Your task to perform on an android device: open chrome and create a bookmark for the current page Image 0: 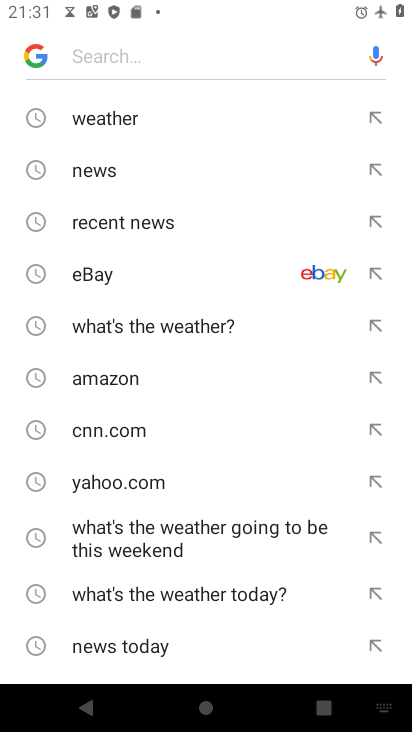
Step 0: press home button
Your task to perform on an android device: open chrome and create a bookmark for the current page Image 1: 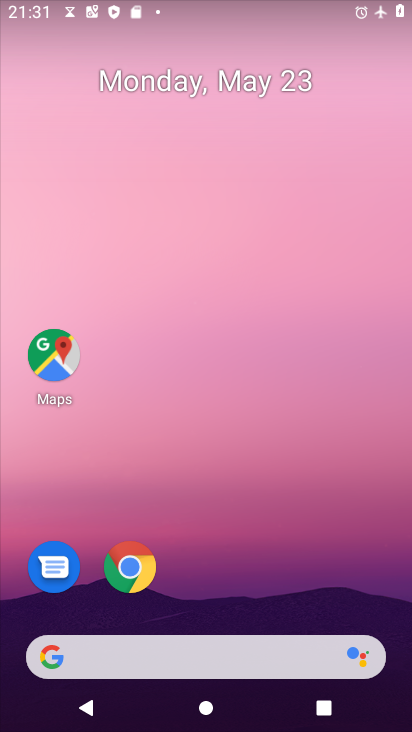
Step 1: click (127, 565)
Your task to perform on an android device: open chrome and create a bookmark for the current page Image 2: 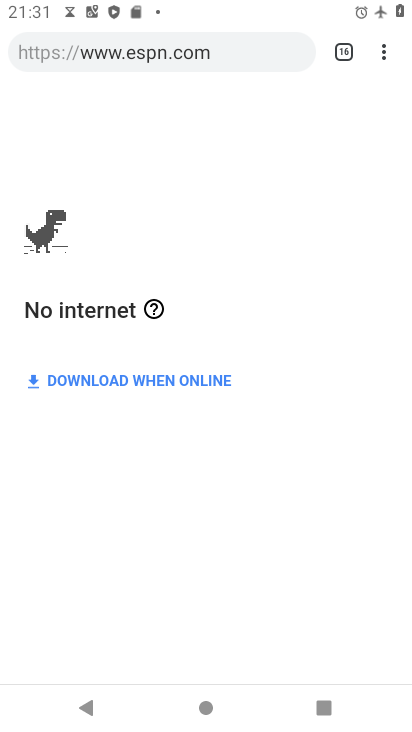
Step 2: click (373, 47)
Your task to perform on an android device: open chrome and create a bookmark for the current page Image 3: 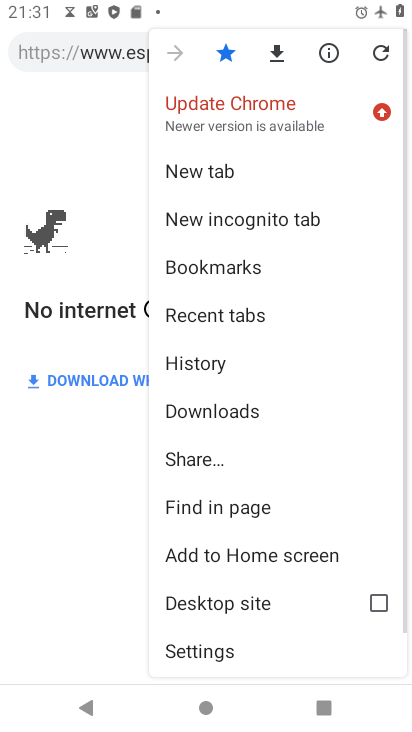
Step 3: click (226, 53)
Your task to perform on an android device: open chrome and create a bookmark for the current page Image 4: 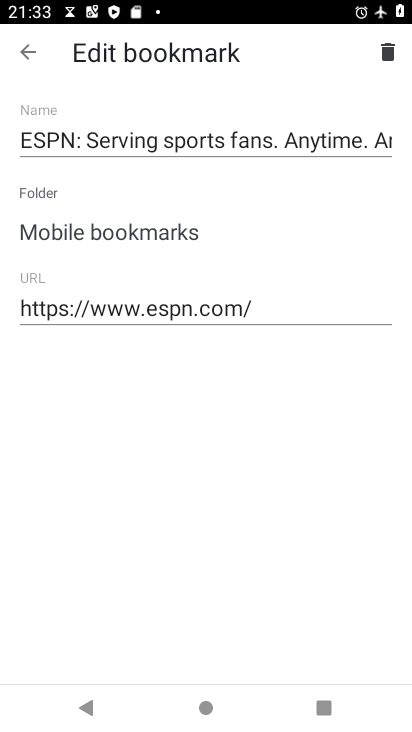
Step 4: click (33, 43)
Your task to perform on an android device: open chrome and create a bookmark for the current page Image 5: 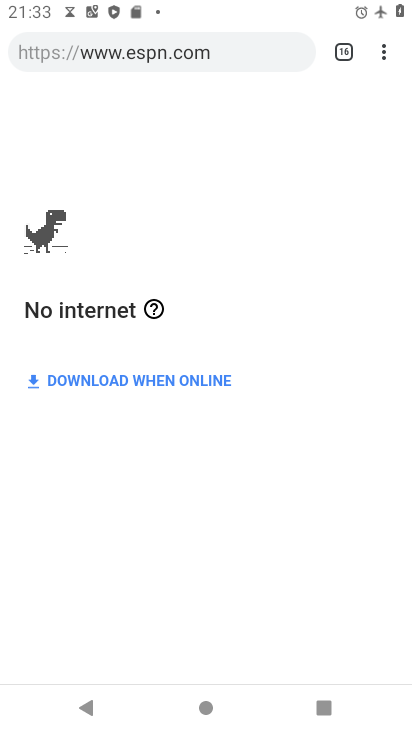
Step 5: task complete